Your task to perform on an android device: Set the phone to "Do not disturb". Image 0: 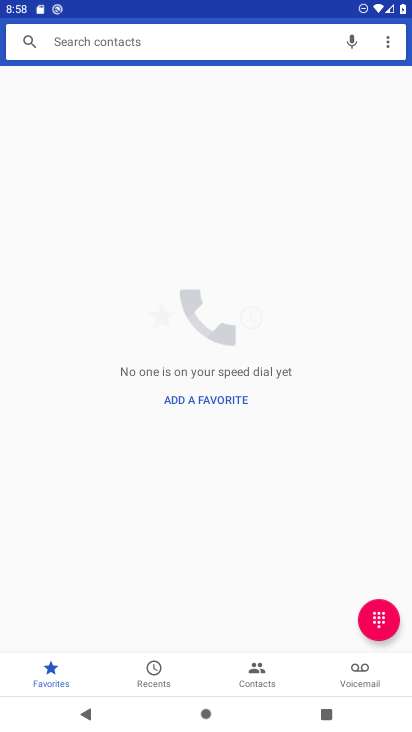
Step 0: drag from (171, 12) to (240, 492)
Your task to perform on an android device: Set the phone to "Do not disturb". Image 1: 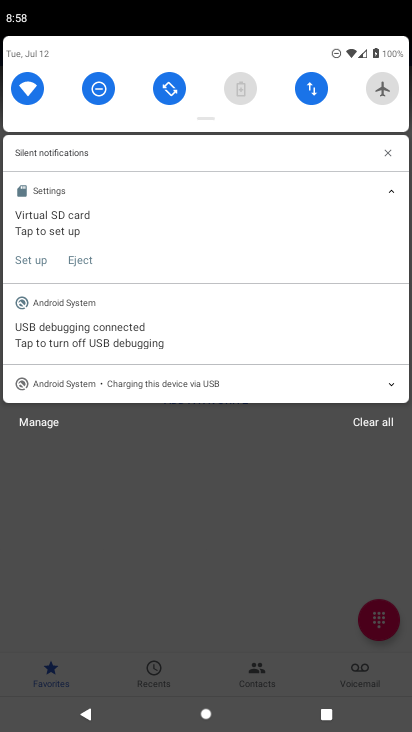
Step 1: task complete